Your task to perform on an android device: Play the last video I watched on Youtube Image 0: 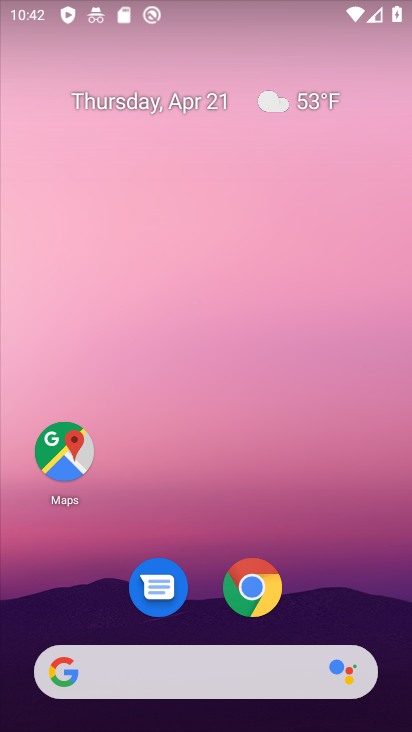
Step 0: drag from (212, 661) to (216, 70)
Your task to perform on an android device: Play the last video I watched on Youtube Image 1: 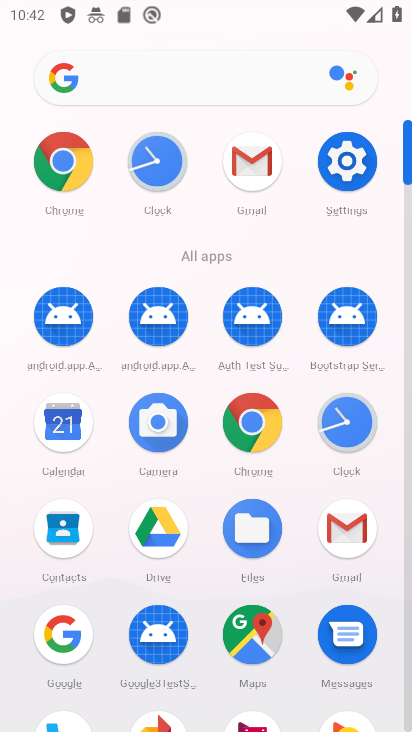
Step 1: drag from (218, 657) to (165, 123)
Your task to perform on an android device: Play the last video I watched on Youtube Image 2: 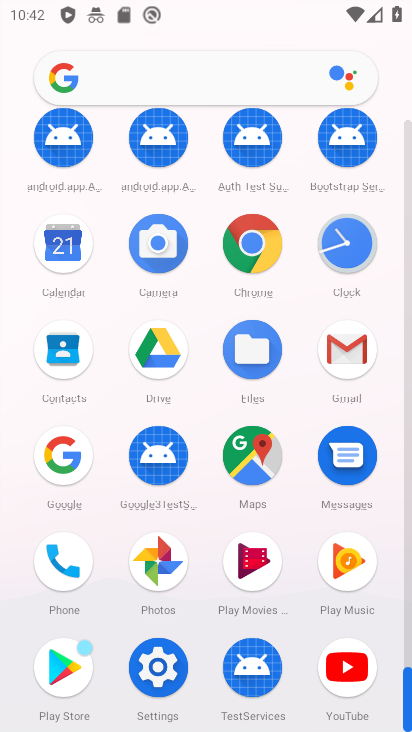
Step 2: click (356, 661)
Your task to perform on an android device: Play the last video I watched on Youtube Image 3: 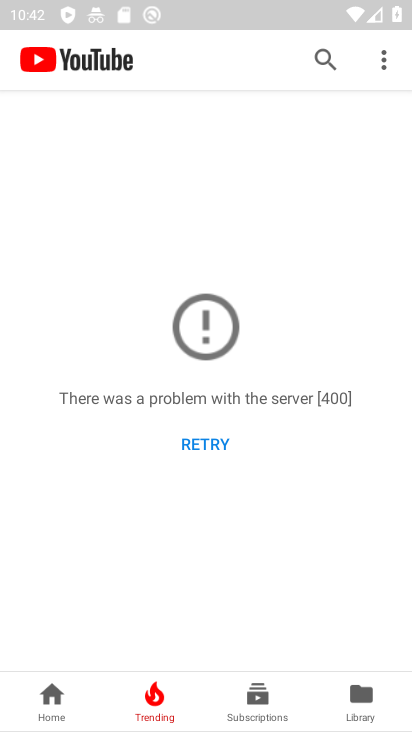
Step 3: task complete